Your task to perform on an android device: turn notification dots off Image 0: 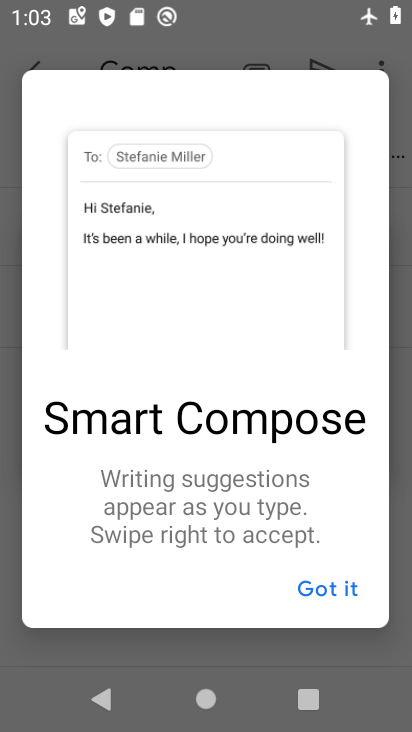
Step 0: press home button
Your task to perform on an android device: turn notification dots off Image 1: 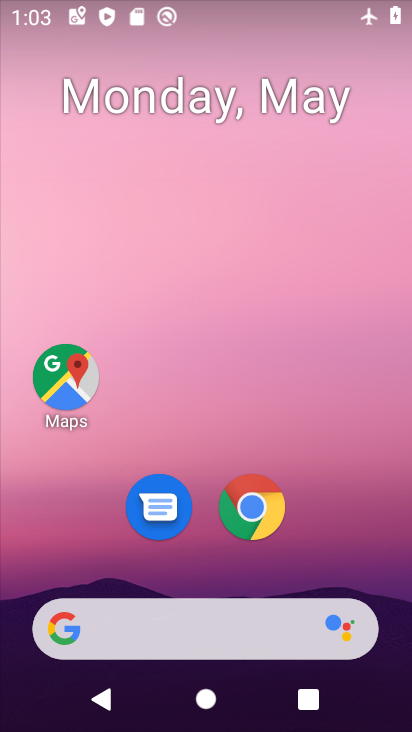
Step 1: drag from (234, 720) to (216, 103)
Your task to perform on an android device: turn notification dots off Image 2: 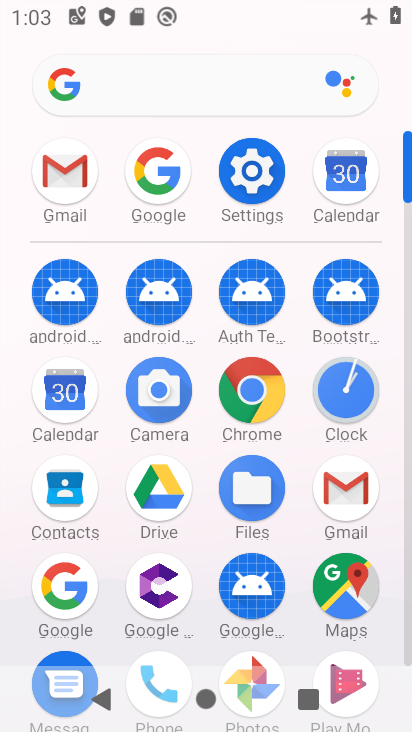
Step 2: click (244, 158)
Your task to perform on an android device: turn notification dots off Image 3: 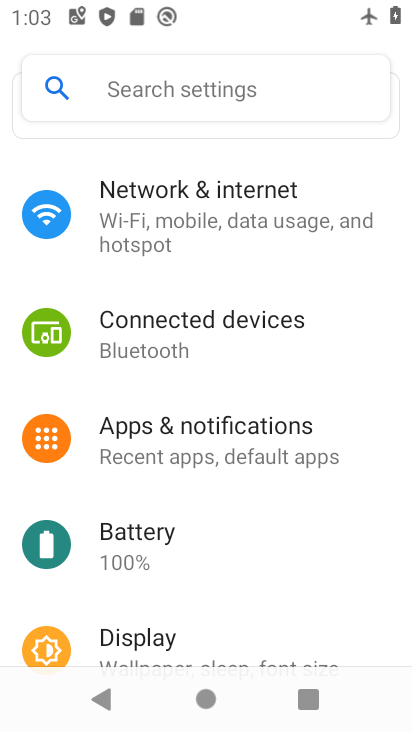
Step 3: click (176, 449)
Your task to perform on an android device: turn notification dots off Image 4: 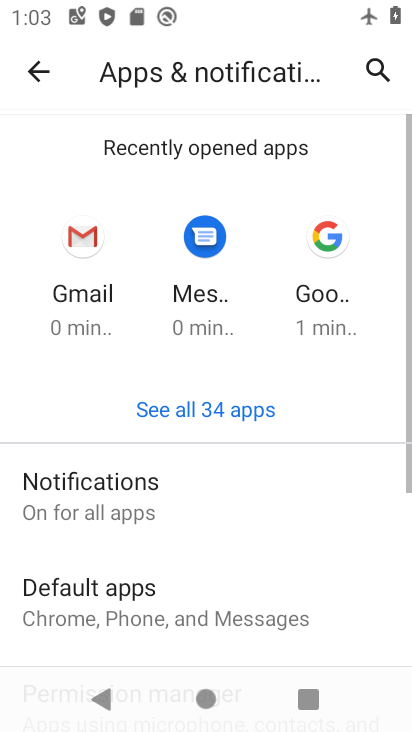
Step 4: click (90, 512)
Your task to perform on an android device: turn notification dots off Image 5: 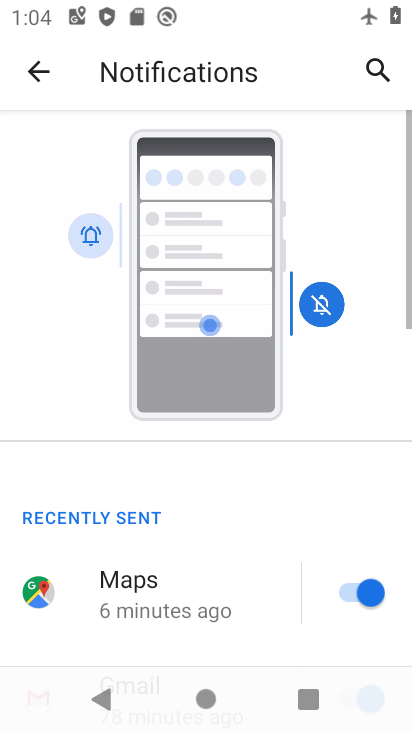
Step 5: drag from (228, 639) to (221, 244)
Your task to perform on an android device: turn notification dots off Image 6: 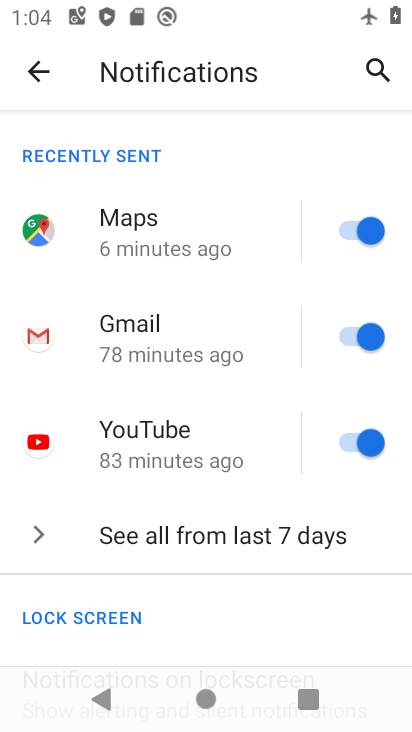
Step 6: drag from (227, 628) to (227, 206)
Your task to perform on an android device: turn notification dots off Image 7: 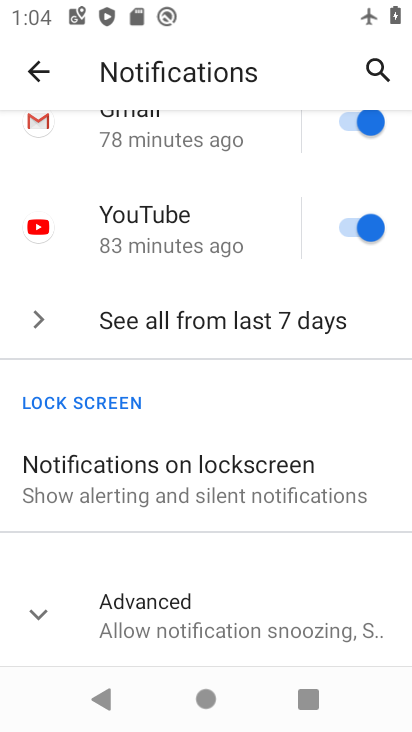
Step 7: click (186, 609)
Your task to perform on an android device: turn notification dots off Image 8: 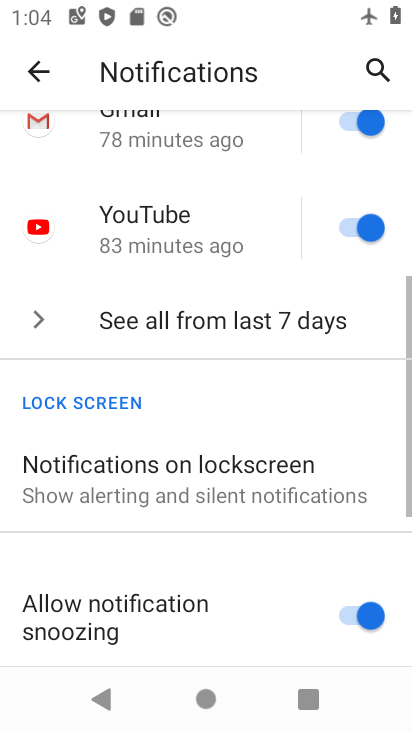
Step 8: task complete